Your task to perform on an android device: Open the calendar and show me this week's events Image 0: 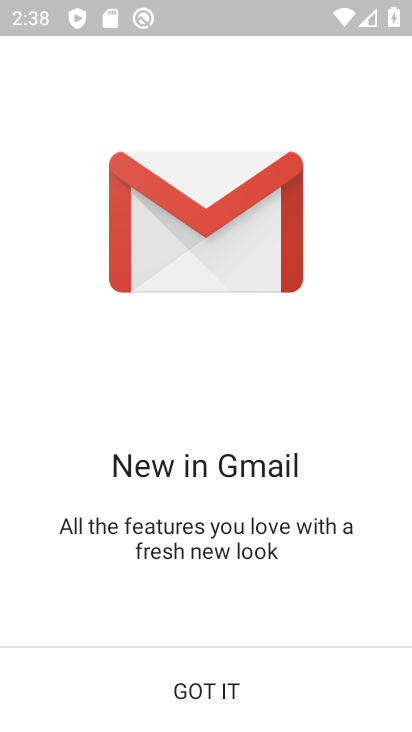
Step 0: press home button
Your task to perform on an android device: Open the calendar and show me this week's events Image 1: 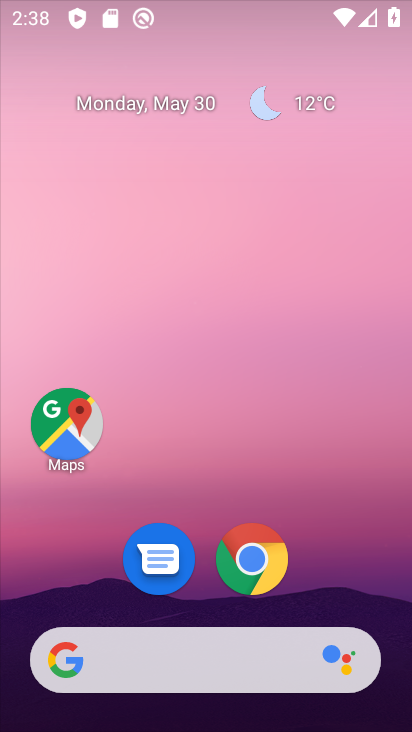
Step 1: drag from (380, 605) to (334, 165)
Your task to perform on an android device: Open the calendar and show me this week's events Image 2: 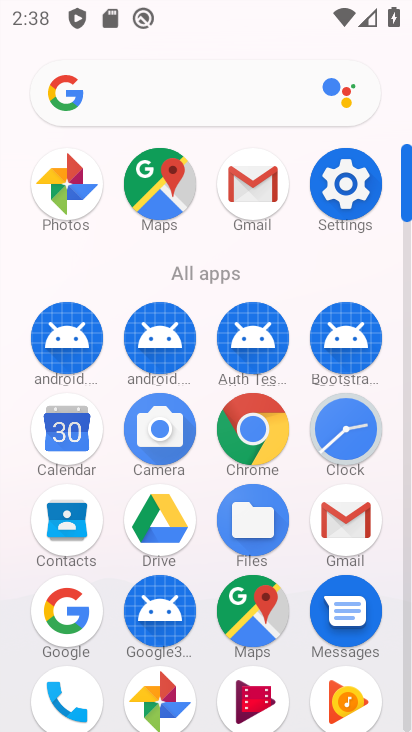
Step 2: click (69, 440)
Your task to perform on an android device: Open the calendar and show me this week's events Image 3: 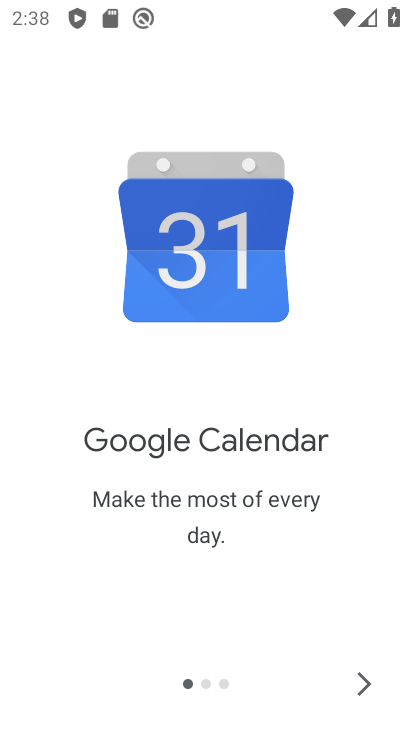
Step 3: click (369, 693)
Your task to perform on an android device: Open the calendar and show me this week's events Image 4: 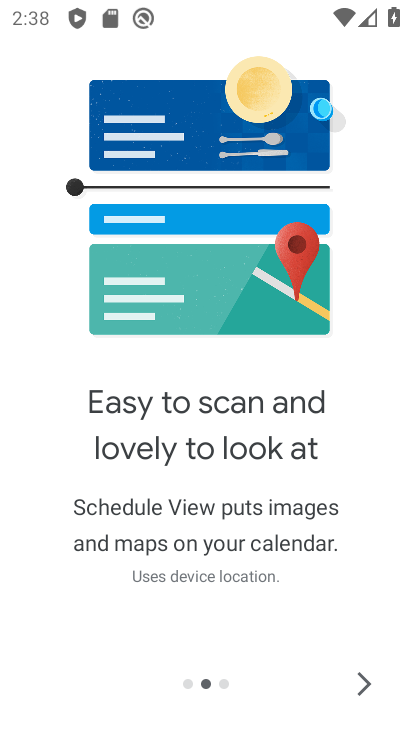
Step 4: click (369, 693)
Your task to perform on an android device: Open the calendar and show me this week's events Image 5: 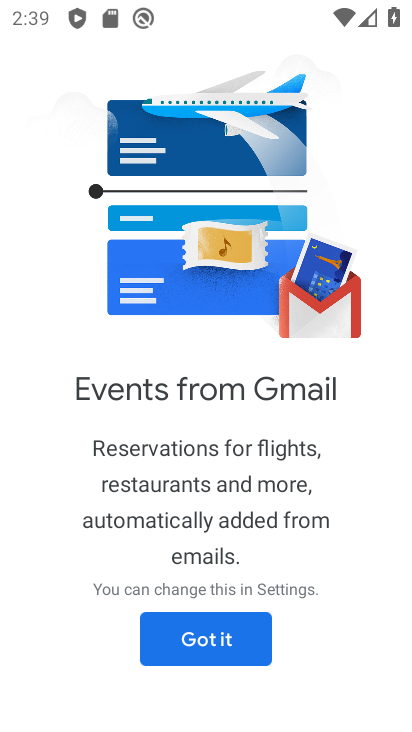
Step 5: click (258, 645)
Your task to perform on an android device: Open the calendar and show me this week's events Image 6: 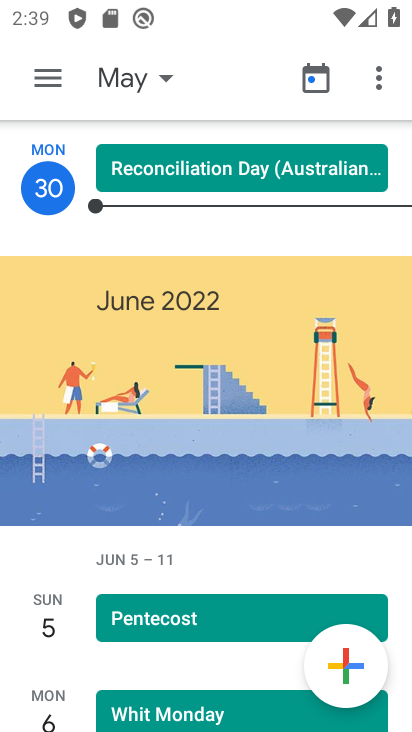
Step 6: drag from (266, 677) to (275, 368)
Your task to perform on an android device: Open the calendar and show me this week's events Image 7: 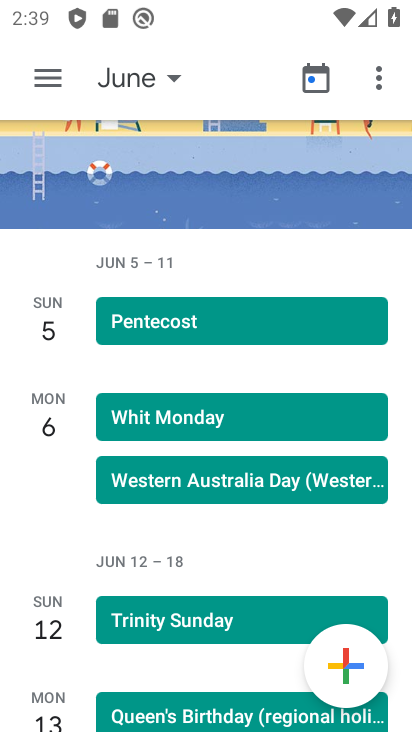
Step 7: drag from (260, 667) to (261, 389)
Your task to perform on an android device: Open the calendar and show me this week's events Image 8: 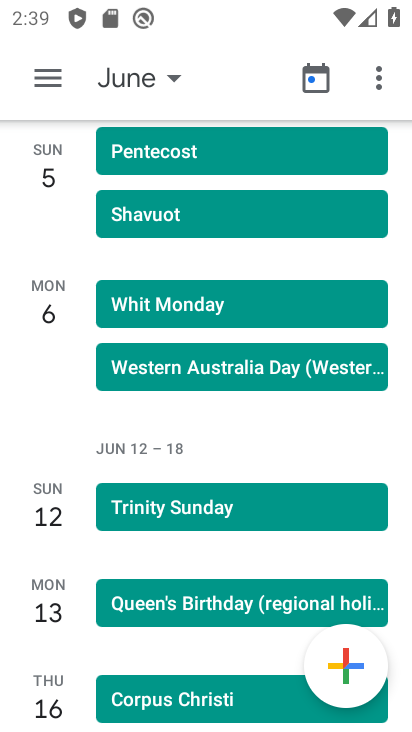
Step 8: click (136, 88)
Your task to perform on an android device: Open the calendar and show me this week's events Image 9: 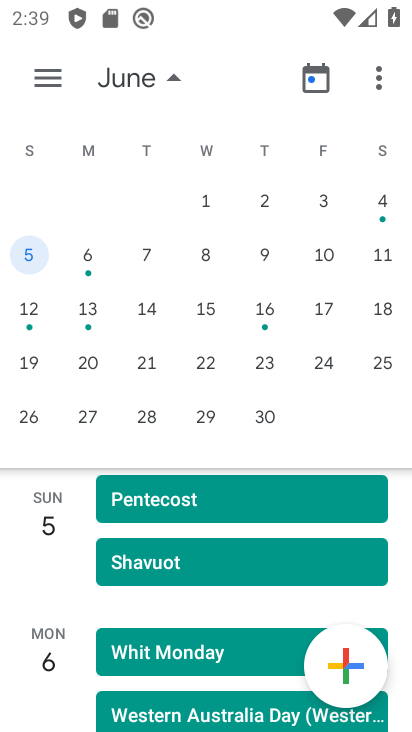
Step 9: task complete